Your task to perform on an android device: Search for pizza restaurants on Maps Image 0: 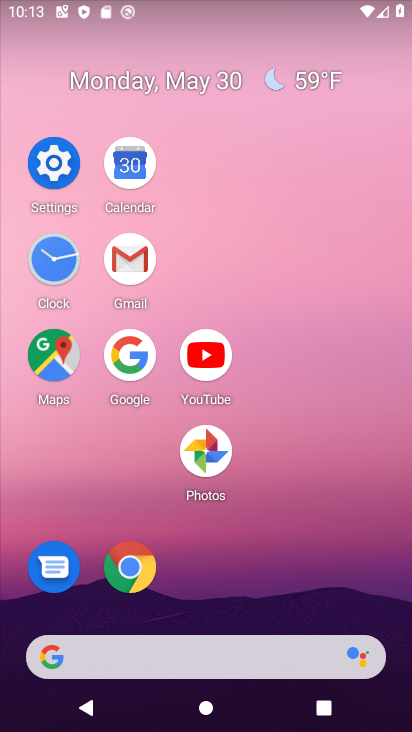
Step 0: click (44, 358)
Your task to perform on an android device: Search for pizza restaurants on Maps Image 1: 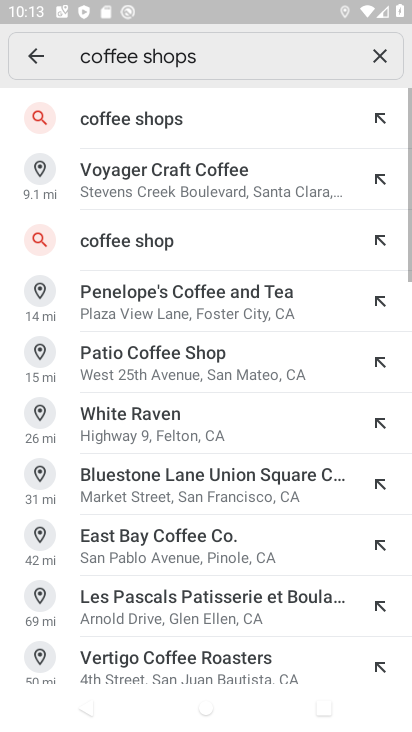
Step 1: click (380, 57)
Your task to perform on an android device: Search for pizza restaurants on Maps Image 2: 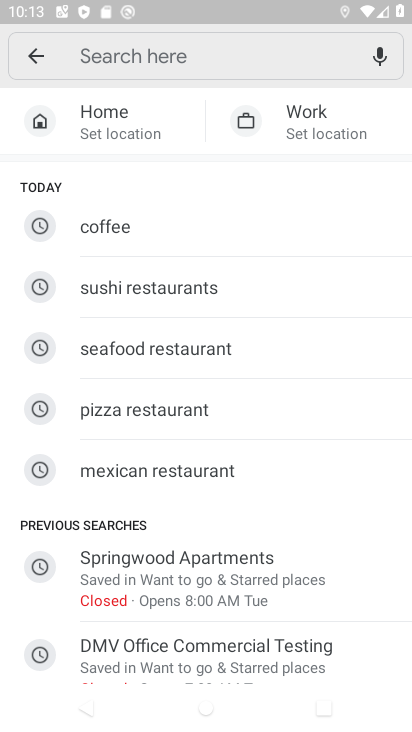
Step 2: click (194, 412)
Your task to perform on an android device: Search for pizza restaurants on Maps Image 3: 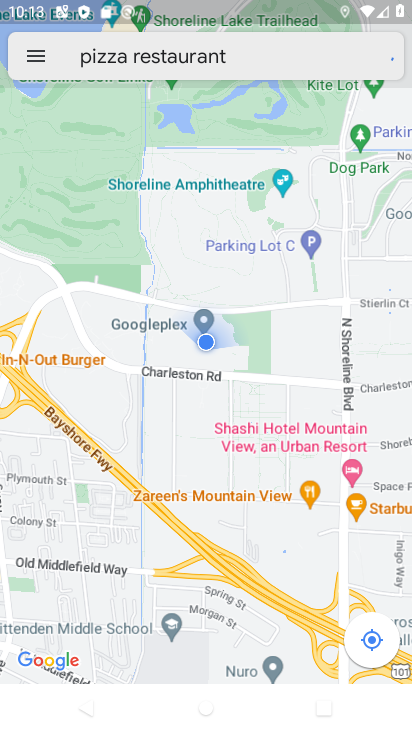
Step 3: task complete